Your task to perform on an android device: Search for flights from Boston to Zurich Image 0: 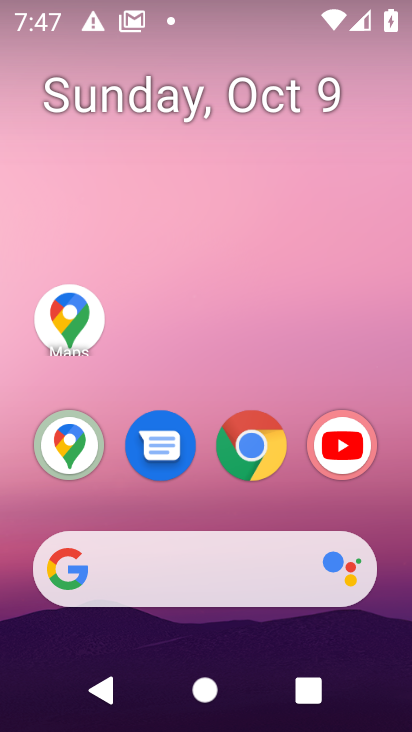
Step 0: drag from (155, 545) to (161, 20)
Your task to perform on an android device: Search for flights from Boston to Zurich Image 1: 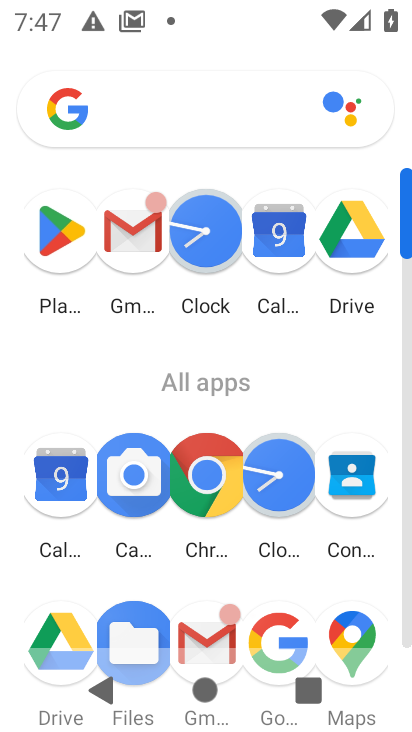
Step 1: click (280, 621)
Your task to perform on an android device: Search for flights from Boston to Zurich Image 2: 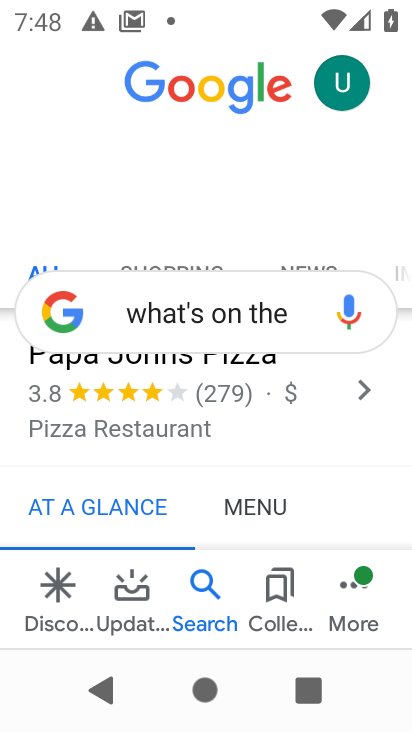
Step 2: click (248, 308)
Your task to perform on an android device: Search for flights from Boston to Zurich Image 3: 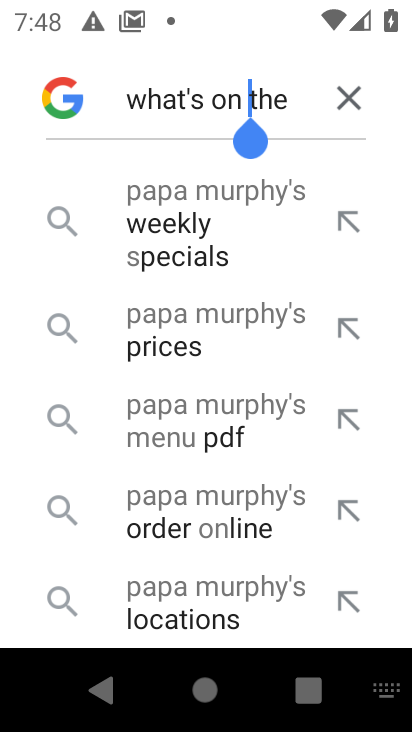
Step 3: click (344, 86)
Your task to perform on an android device: Search for flights from Boston to Zurich Image 4: 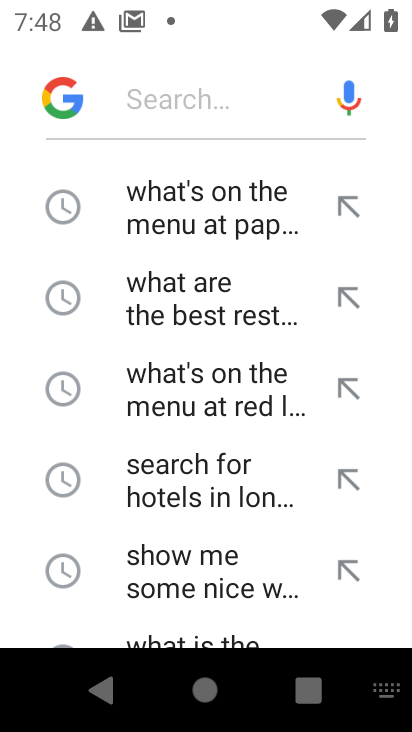
Step 4: type "Search for flights from Boston to Zurich"
Your task to perform on an android device: Search for flights from Boston to Zurich Image 5: 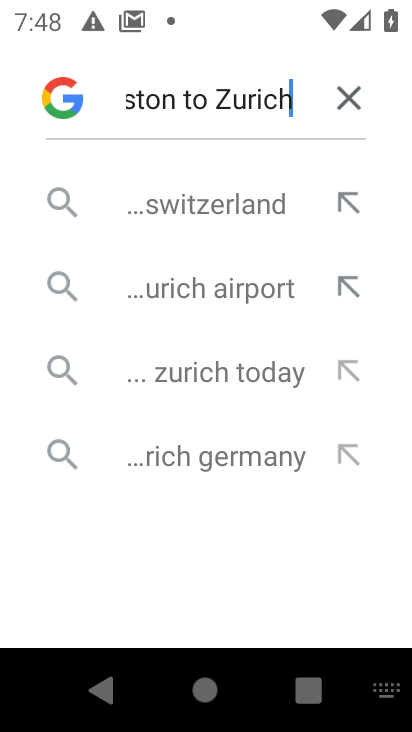
Step 5: click (230, 288)
Your task to perform on an android device: Search for flights from Boston to Zurich Image 6: 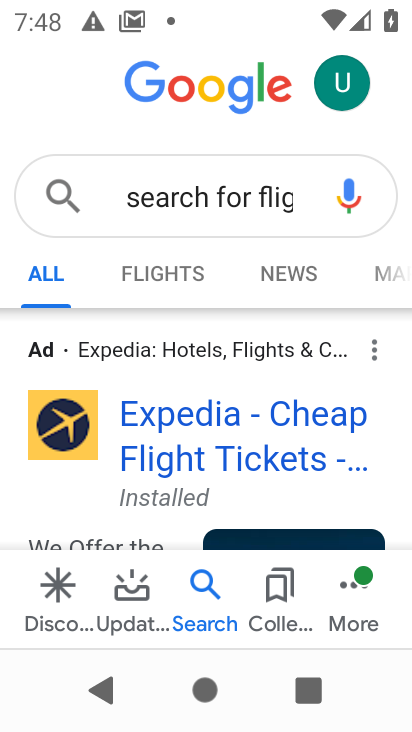
Step 6: drag from (199, 494) to (203, 261)
Your task to perform on an android device: Search for flights from Boston to Zurich Image 7: 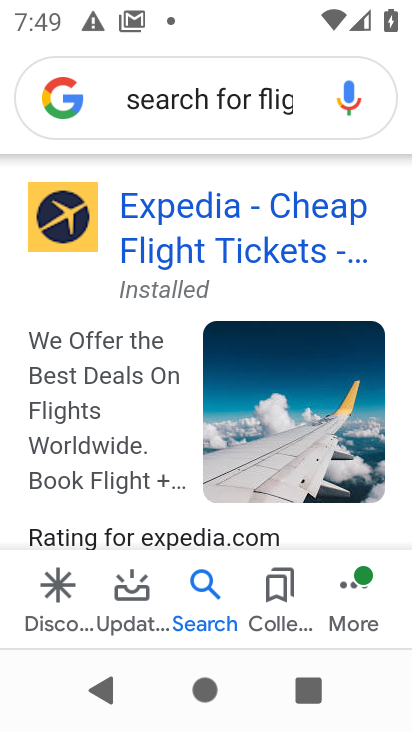
Step 7: click (203, 231)
Your task to perform on an android device: Search for flights from Boston to Zurich Image 8: 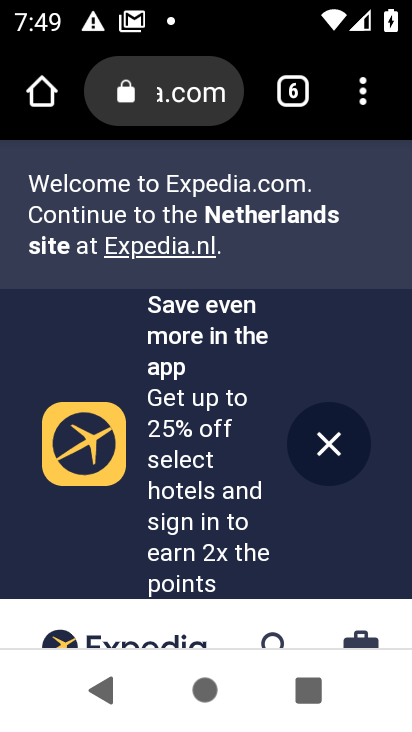
Step 8: task complete